Your task to perform on an android device: What's on my calendar today? Image 0: 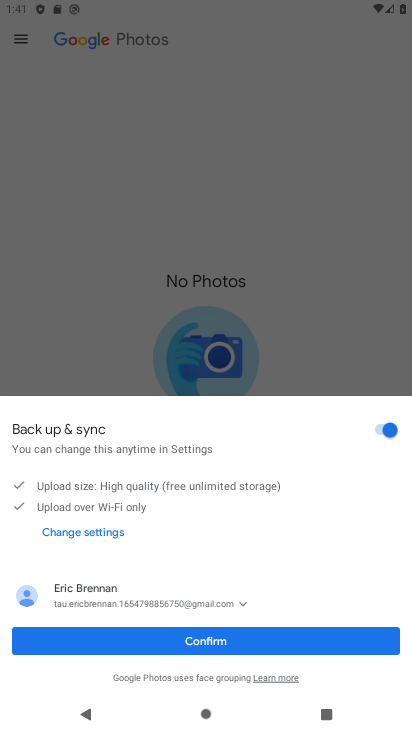
Step 0: press back button
Your task to perform on an android device: What's on my calendar today? Image 1: 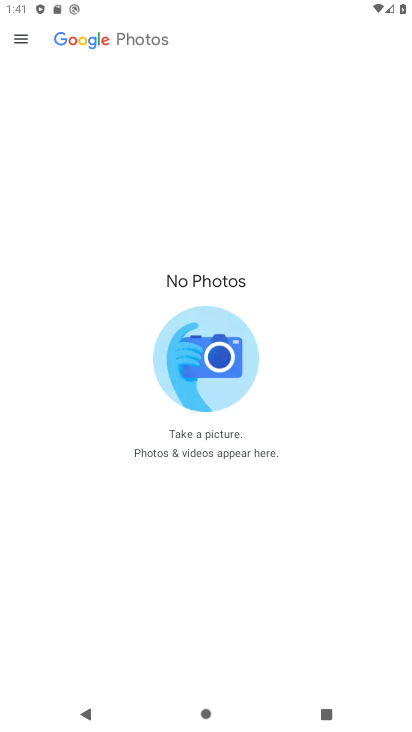
Step 1: press back button
Your task to perform on an android device: What's on my calendar today? Image 2: 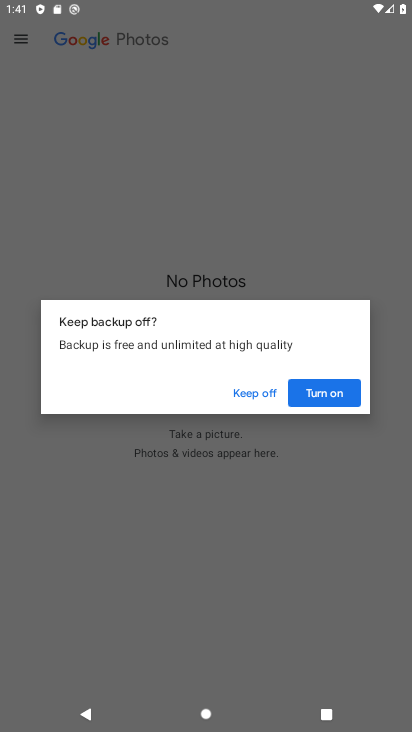
Step 2: click (252, 379)
Your task to perform on an android device: What's on my calendar today? Image 3: 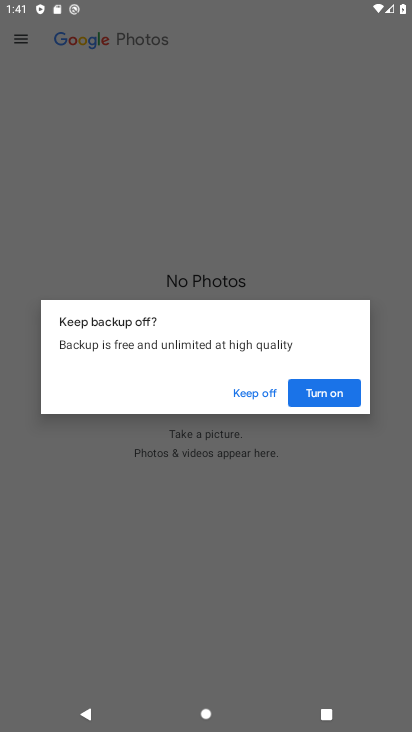
Step 3: click (255, 384)
Your task to perform on an android device: What's on my calendar today? Image 4: 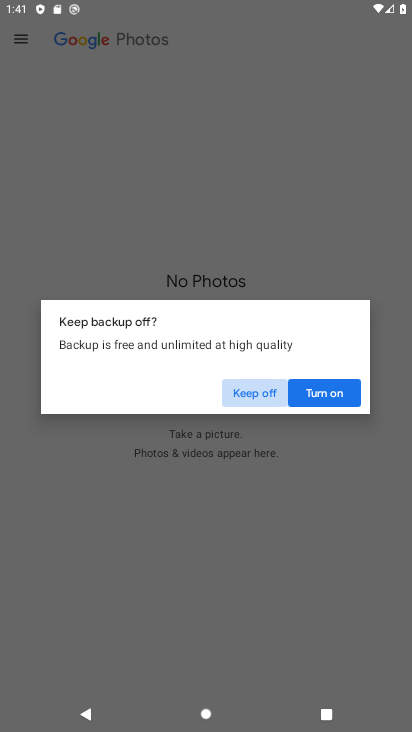
Step 4: click (262, 384)
Your task to perform on an android device: What's on my calendar today? Image 5: 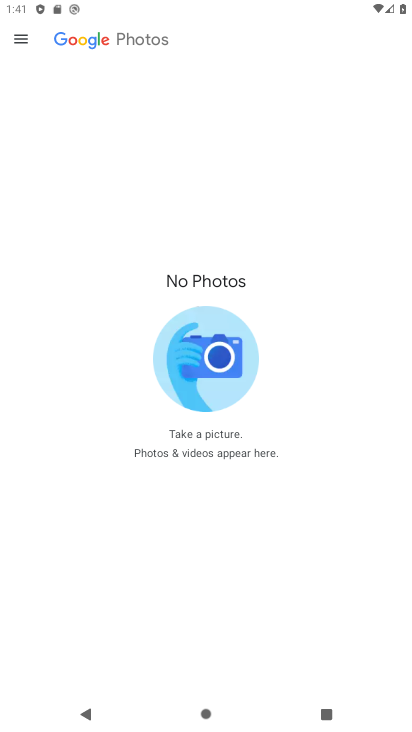
Step 5: drag from (254, 582) to (200, 98)
Your task to perform on an android device: What's on my calendar today? Image 6: 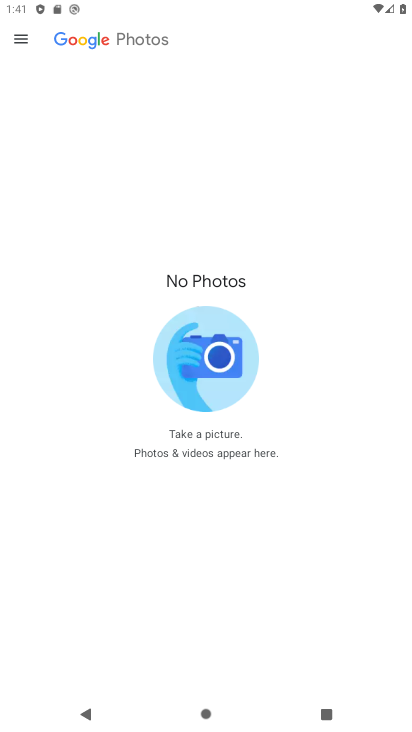
Step 6: press back button
Your task to perform on an android device: What's on my calendar today? Image 7: 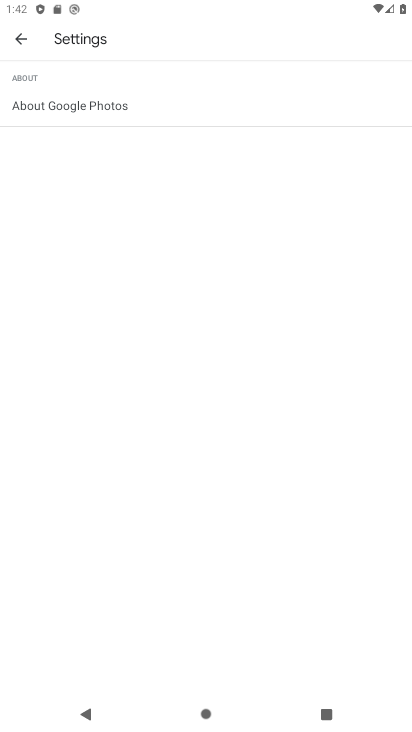
Step 7: click (18, 31)
Your task to perform on an android device: What's on my calendar today? Image 8: 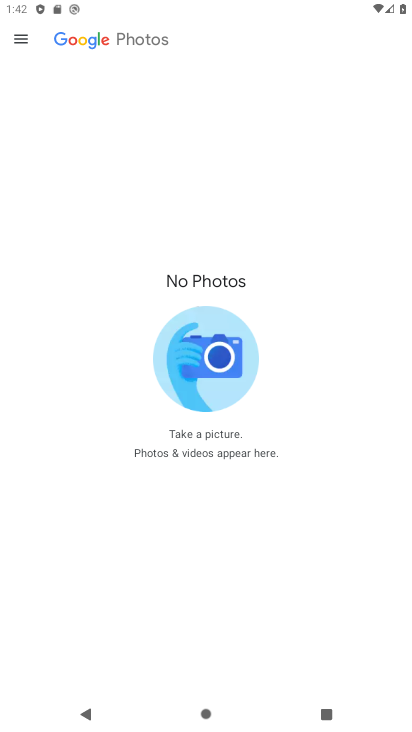
Step 8: press home button
Your task to perform on an android device: What's on my calendar today? Image 9: 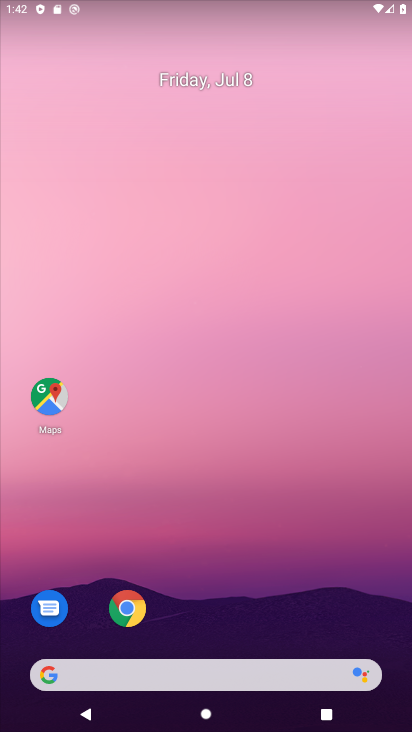
Step 9: drag from (248, 513) to (207, 10)
Your task to perform on an android device: What's on my calendar today? Image 10: 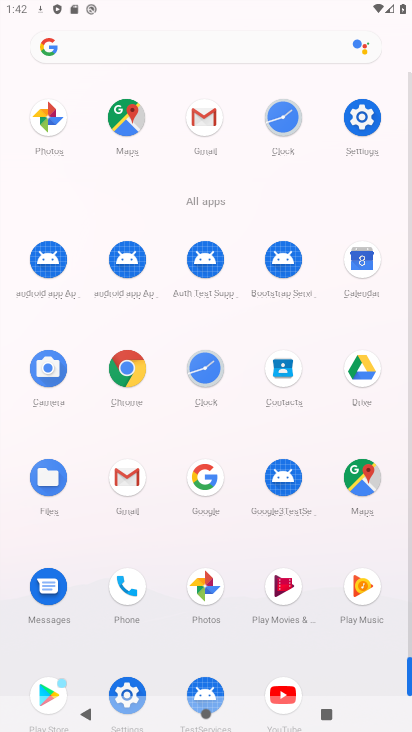
Step 10: drag from (161, 361) to (128, 0)
Your task to perform on an android device: What's on my calendar today? Image 11: 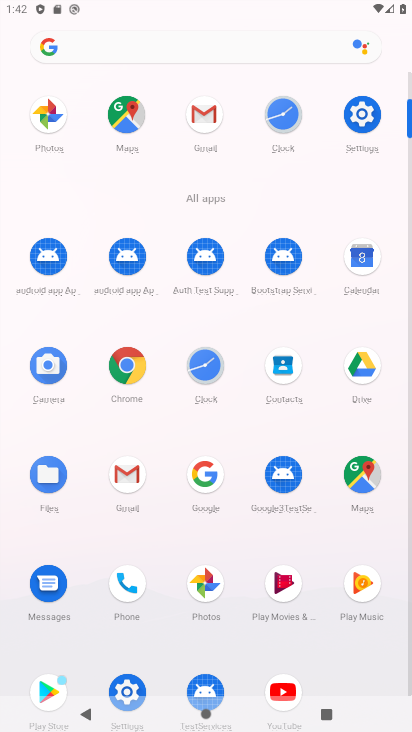
Step 11: click (359, 257)
Your task to perform on an android device: What's on my calendar today? Image 12: 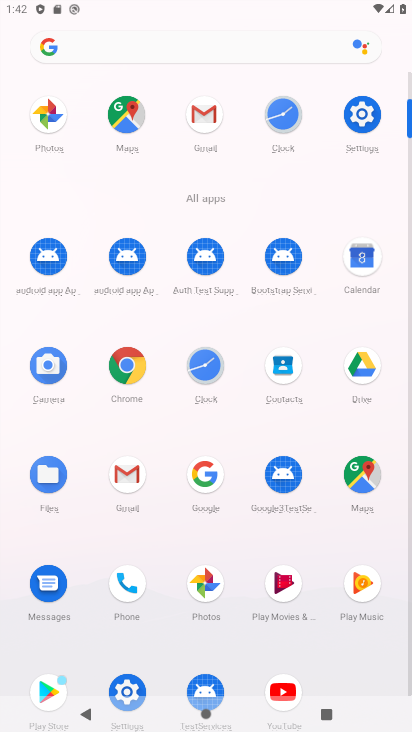
Step 12: click (360, 256)
Your task to perform on an android device: What's on my calendar today? Image 13: 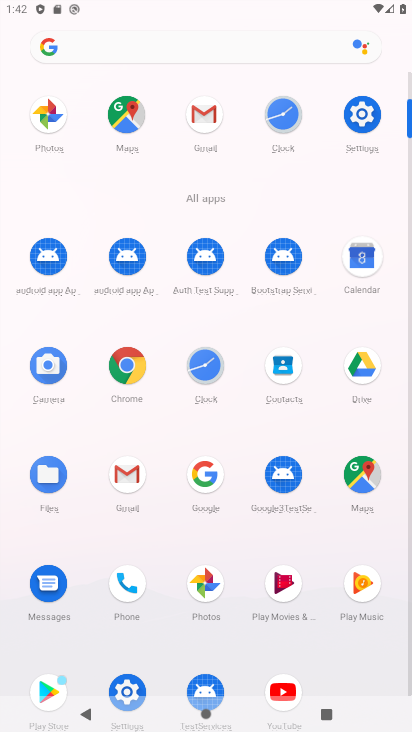
Step 13: click (361, 256)
Your task to perform on an android device: What's on my calendar today? Image 14: 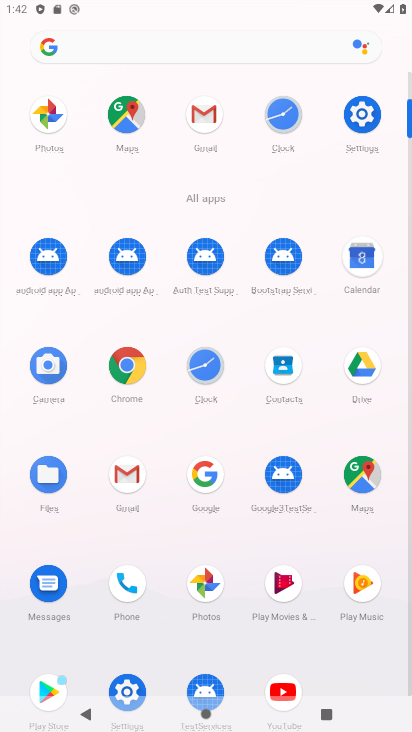
Step 14: click (359, 257)
Your task to perform on an android device: What's on my calendar today? Image 15: 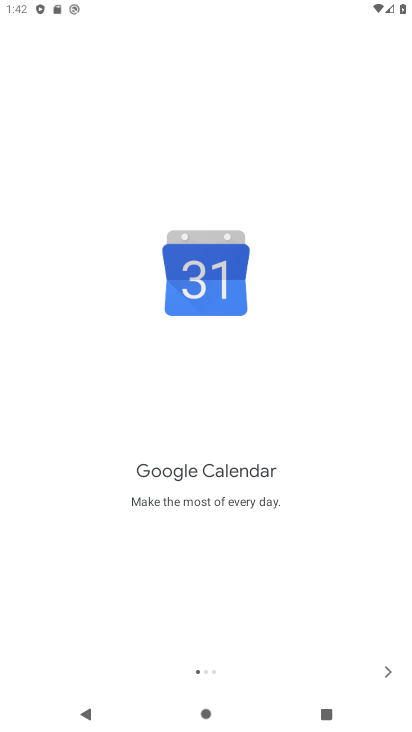
Step 15: click (393, 669)
Your task to perform on an android device: What's on my calendar today? Image 16: 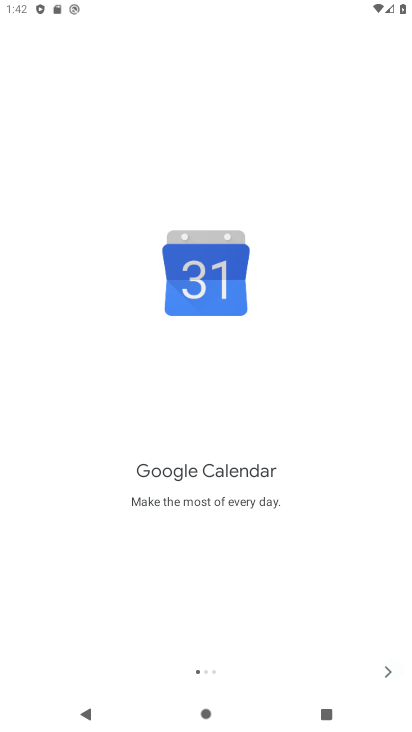
Step 16: click (393, 669)
Your task to perform on an android device: What's on my calendar today? Image 17: 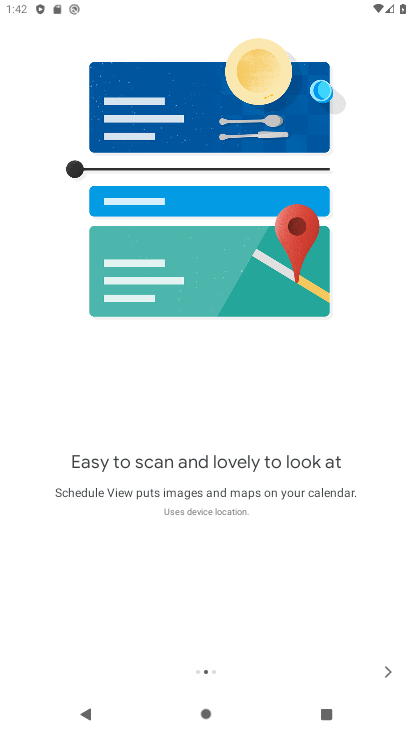
Step 17: click (393, 669)
Your task to perform on an android device: What's on my calendar today? Image 18: 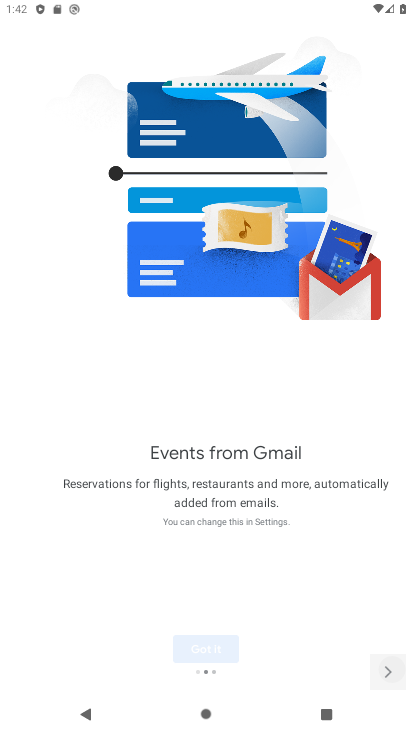
Step 18: click (395, 670)
Your task to perform on an android device: What's on my calendar today? Image 19: 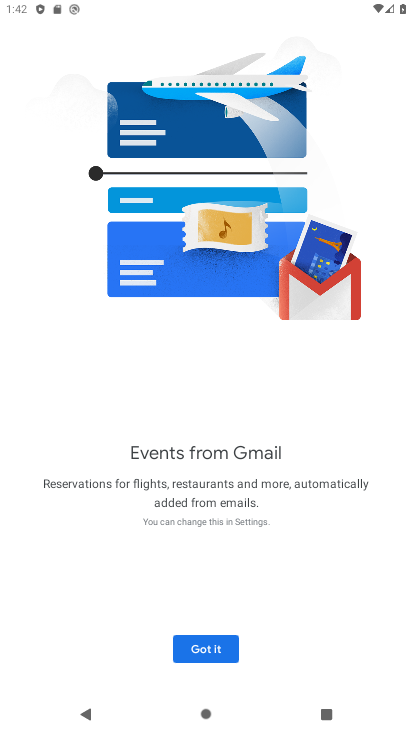
Step 19: click (384, 669)
Your task to perform on an android device: What's on my calendar today? Image 20: 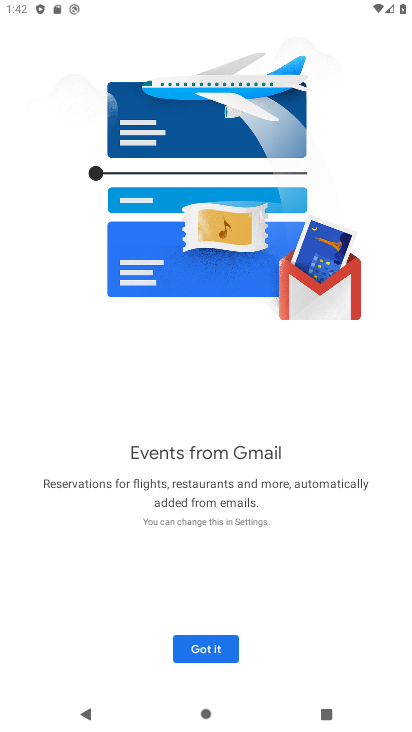
Step 20: click (384, 669)
Your task to perform on an android device: What's on my calendar today? Image 21: 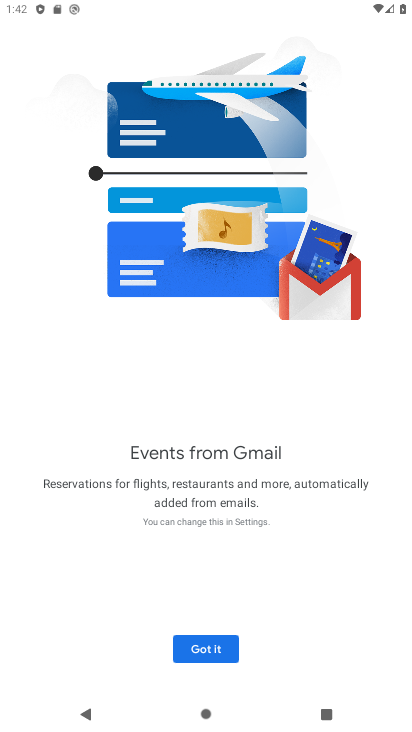
Step 21: press back button
Your task to perform on an android device: What's on my calendar today? Image 22: 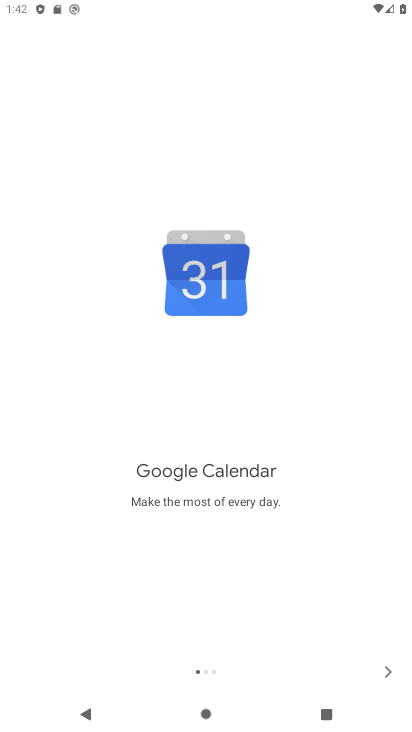
Step 22: click (393, 673)
Your task to perform on an android device: What's on my calendar today? Image 23: 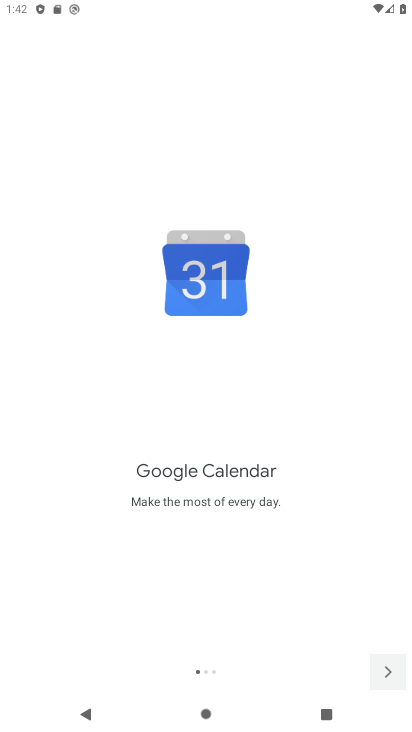
Step 23: click (388, 676)
Your task to perform on an android device: What's on my calendar today? Image 24: 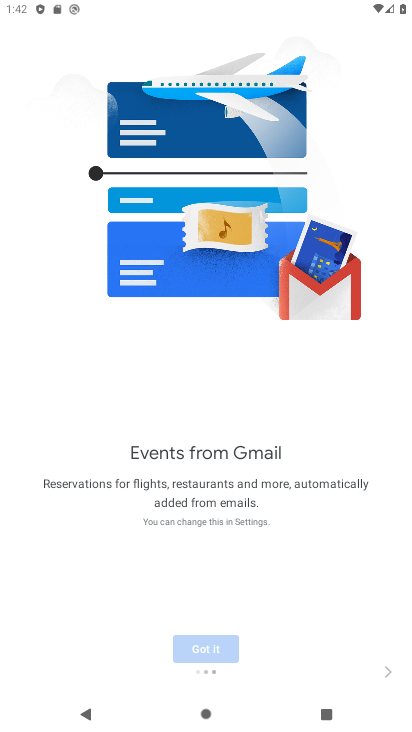
Step 24: click (387, 677)
Your task to perform on an android device: What's on my calendar today? Image 25: 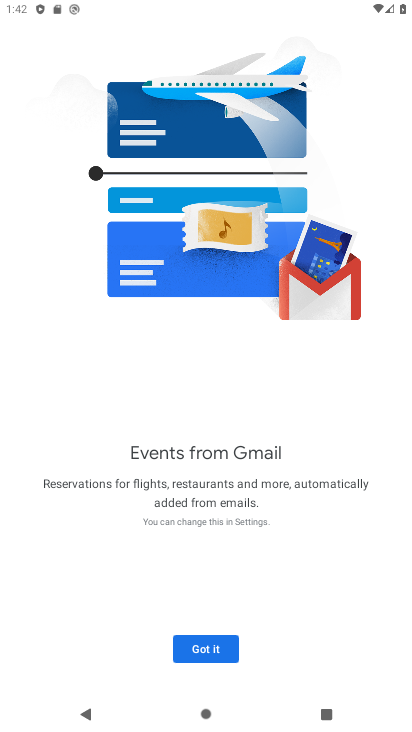
Step 25: click (386, 678)
Your task to perform on an android device: What's on my calendar today? Image 26: 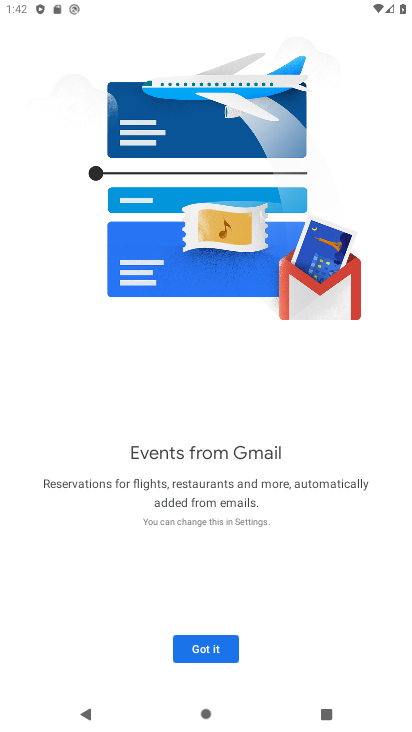
Step 26: click (384, 680)
Your task to perform on an android device: What's on my calendar today? Image 27: 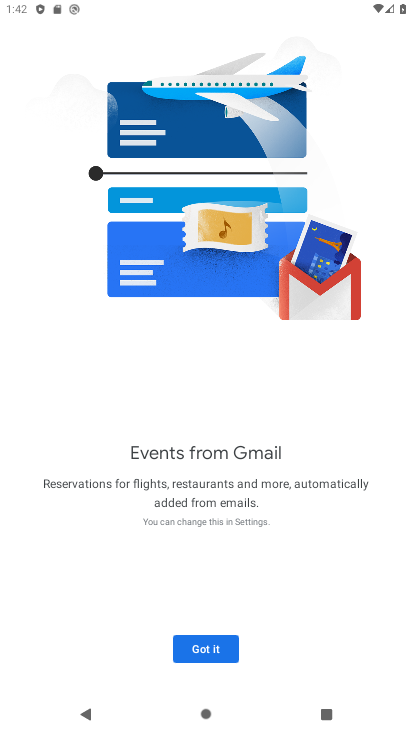
Step 27: click (384, 680)
Your task to perform on an android device: What's on my calendar today? Image 28: 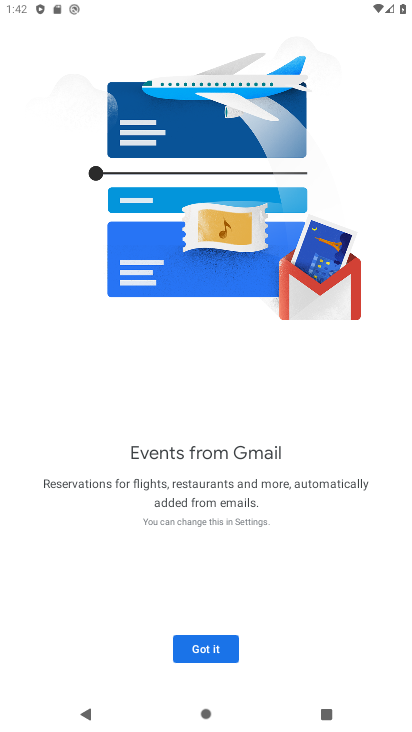
Step 28: click (219, 650)
Your task to perform on an android device: What's on my calendar today? Image 29: 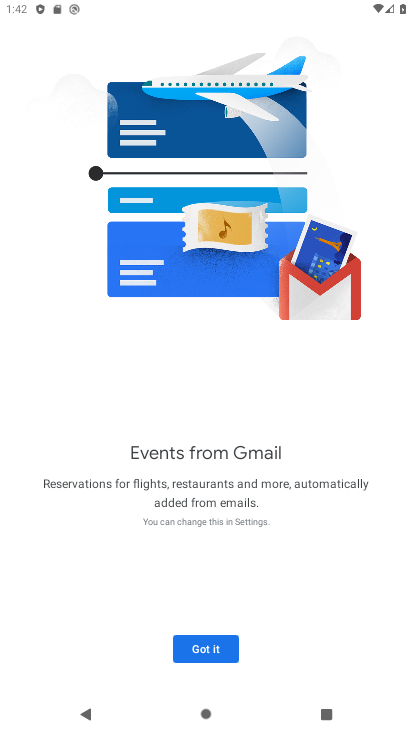
Step 29: click (219, 653)
Your task to perform on an android device: What's on my calendar today? Image 30: 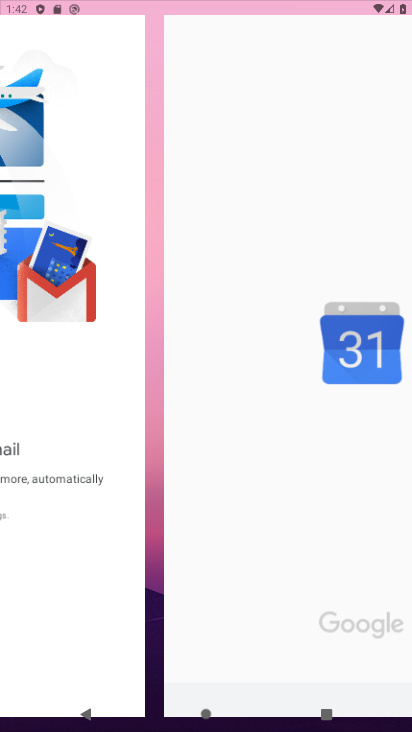
Step 30: click (228, 671)
Your task to perform on an android device: What's on my calendar today? Image 31: 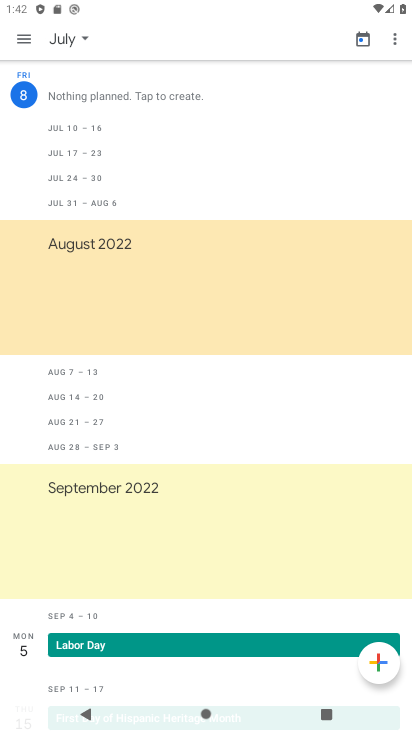
Step 31: task complete